Your task to perform on an android device: turn notification dots off Image 0: 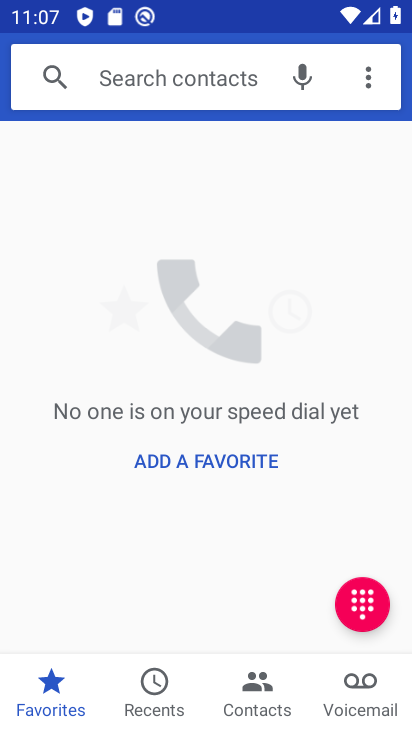
Step 0: press home button
Your task to perform on an android device: turn notification dots off Image 1: 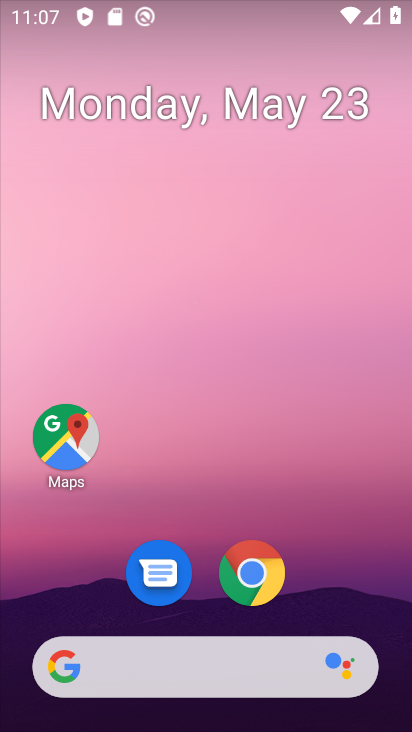
Step 1: drag from (397, 615) to (377, 344)
Your task to perform on an android device: turn notification dots off Image 2: 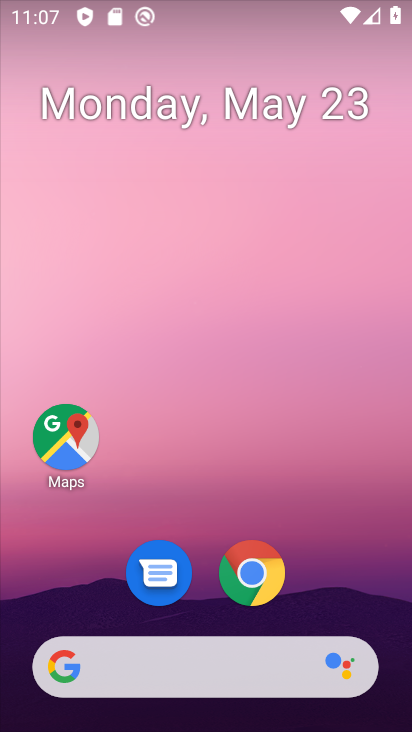
Step 2: drag from (398, 618) to (349, 365)
Your task to perform on an android device: turn notification dots off Image 3: 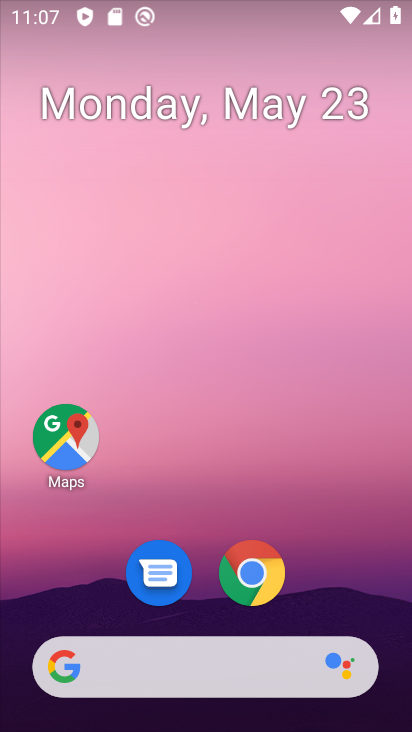
Step 3: drag from (368, 609) to (350, 254)
Your task to perform on an android device: turn notification dots off Image 4: 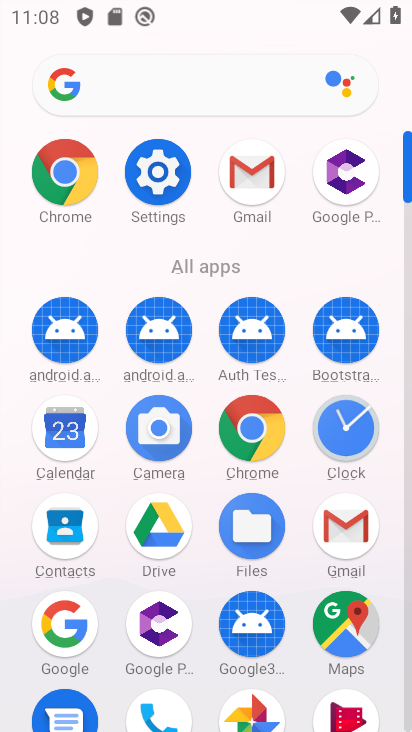
Step 4: click (170, 196)
Your task to perform on an android device: turn notification dots off Image 5: 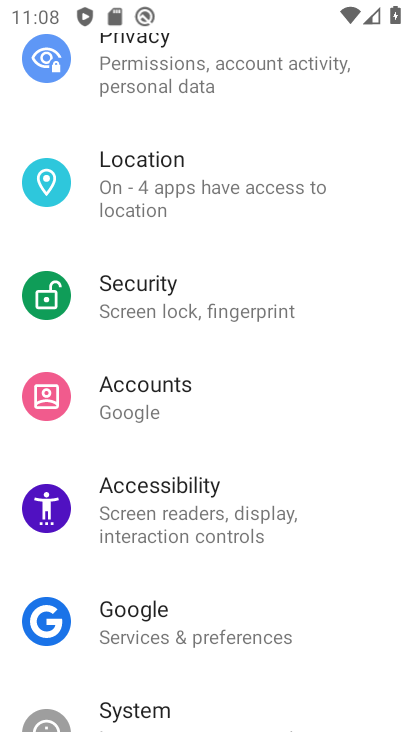
Step 5: drag from (346, 215) to (353, 348)
Your task to perform on an android device: turn notification dots off Image 6: 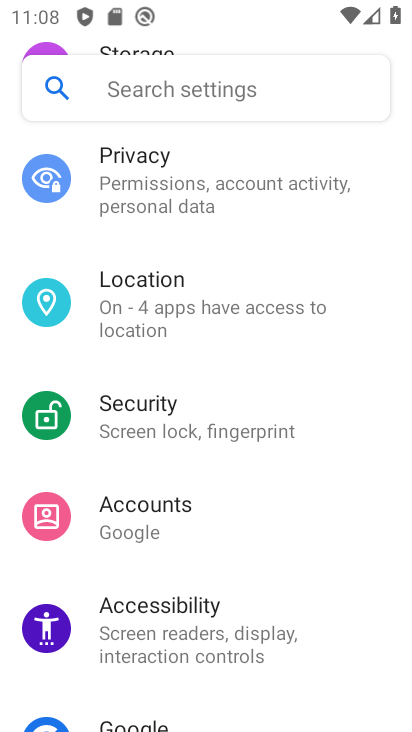
Step 6: drag from (354, 169) to (356, 374)
Your task to perform on an android device: turn notification dots off Image 7: 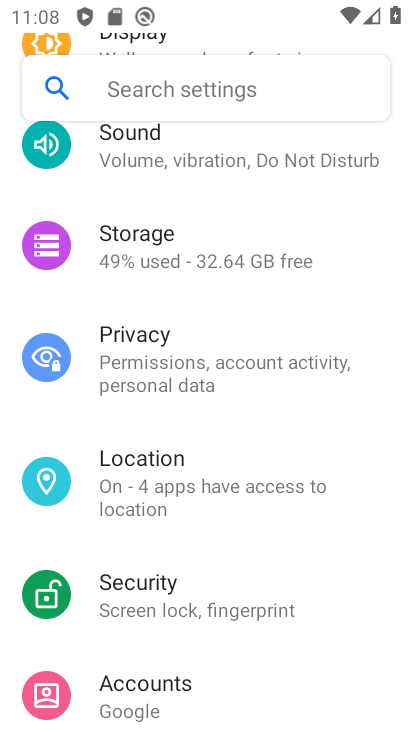
Step 7: drag from (377, 189) to (367, 319)
Your task to perform on an android device: turn notification dots off Image 8: 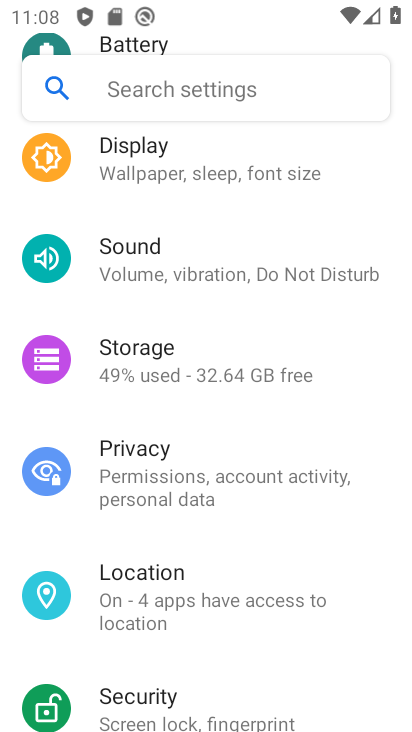
Step 8: drag from (348, 156) to (355, 281)
Your task to perform on an android device: turn notification dots off Image 9: 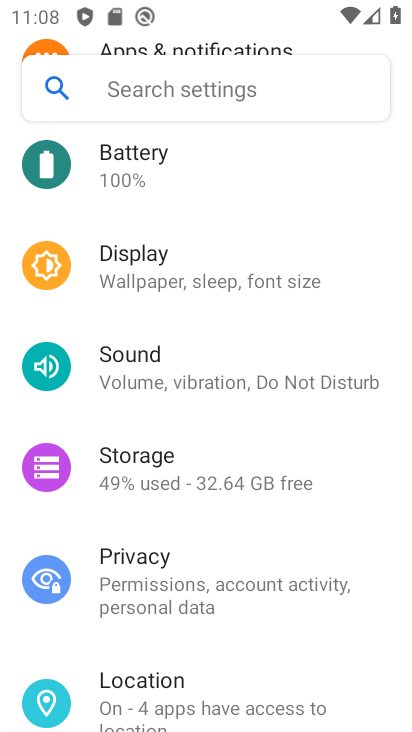
Step 9: drag from (358, 196) to (361, 321)
Your task to perform on an android device: turn notification dots off Image 10: 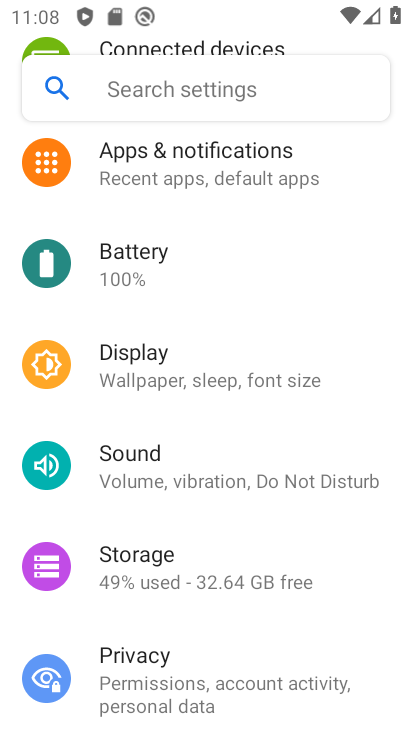
Step 10: drag from (358, 232) to (374, 384)
Your task to perform on an android device: turn notification dots off Image 11: 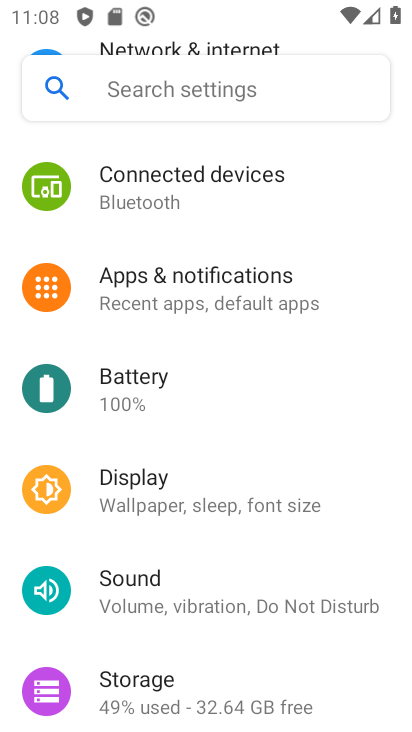
Step 11: drag from (371, 224) to (358, 405)
Your task to perform on an android device: turn notification dots off Image 12: 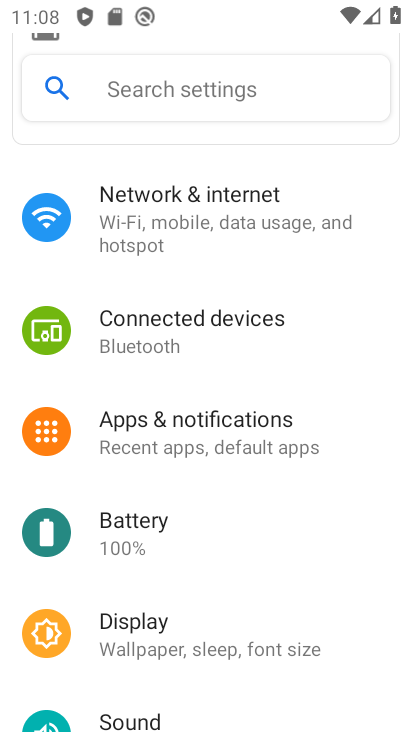
Step 12: drag from (367, 195) to (363, 360)
Your task to perform on an android device: turn notification dots off Image 13: 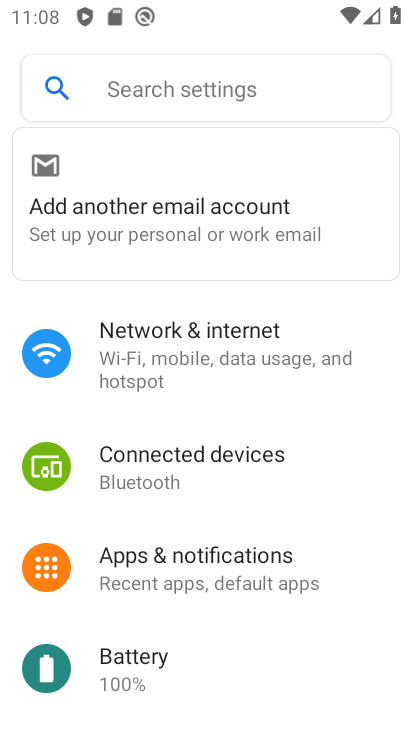
Step 13: drag from (360, 285) to (370, 428)
Your task to perform on an android device: turn notification dots off Image 14: 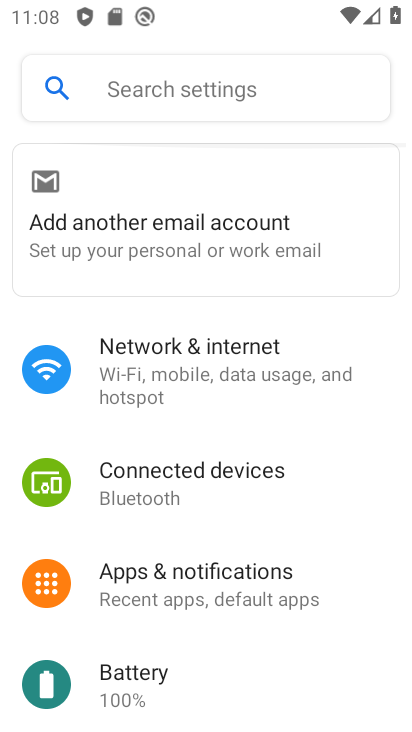
Step 14: drag from (346, 480) to (355, 345)
Your task to perform on an android device: turn notification dots off Image 15: 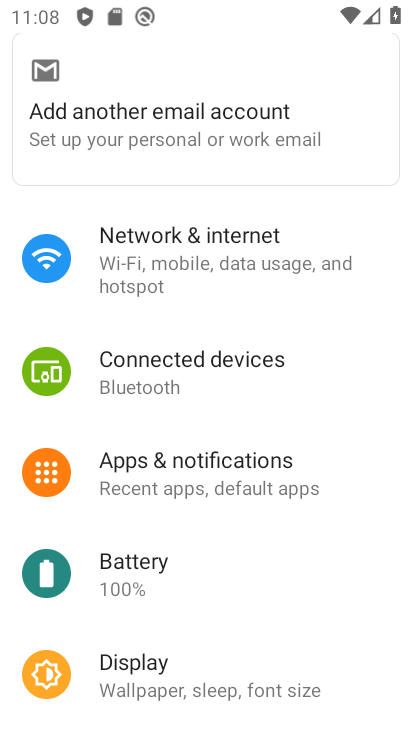
Step 15: drag from (364, 510) to (372, 390)
Your task to perform on an android device: turn notification dots off Image 16: 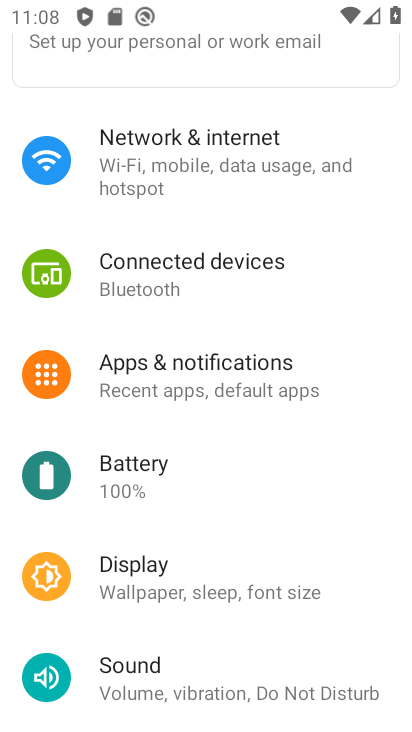
Step 16: drag from (373, 541) to (354, 410)
Your task to perform on an android device: turn notification dots off Image 17: 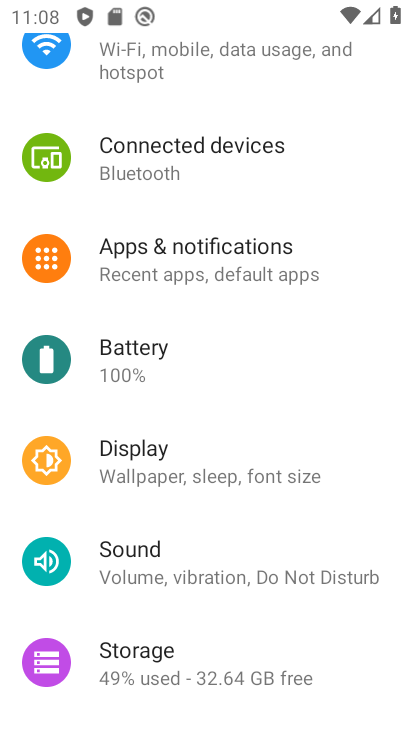
Step 17: drag from (348, 607) to (354, 473)
Your task to perform on an android device: turn notification dots off Image 18: 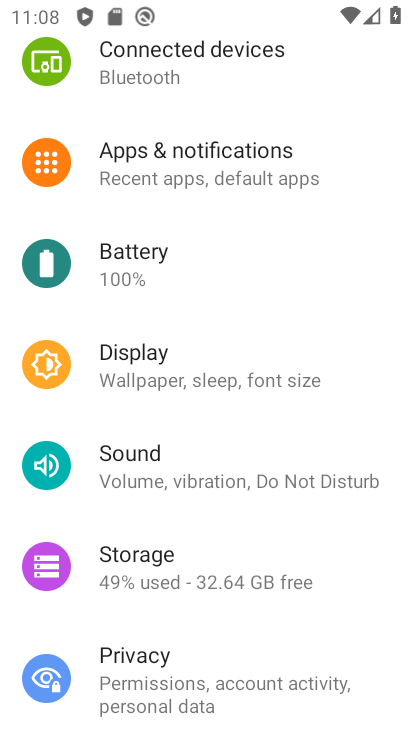
Step 18: click (276, 200)
Your task to perform on an android device: turn notification dots off Image 19: 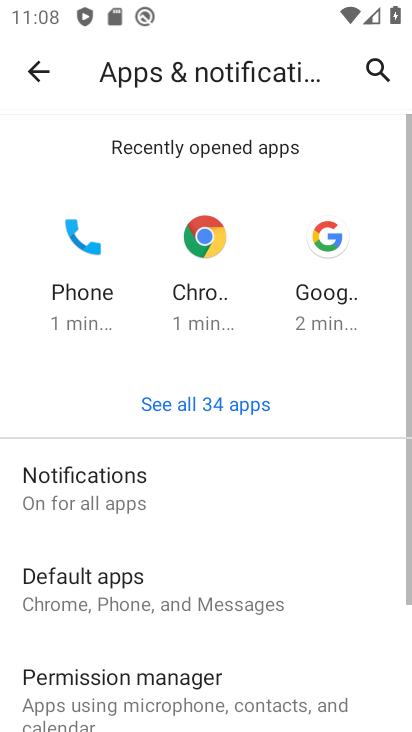
Step 19: click (147, 518)
Your task to perform on an android device: turn notification dots off Image 20: 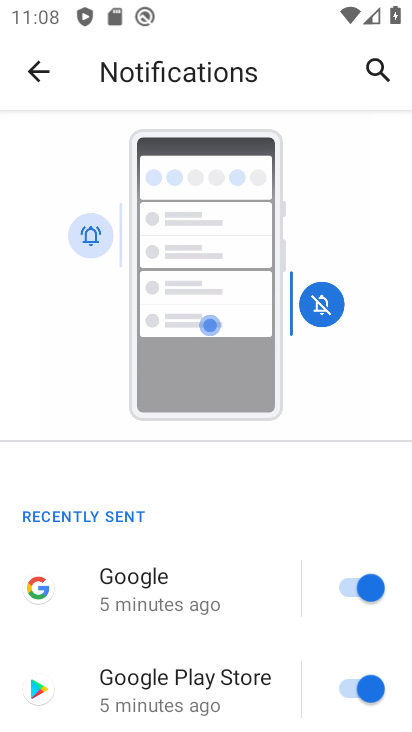
Step 20: drag from (280, 557) to (268, 383)
Your task to perform on an android device: turn notification dots off Image 21: 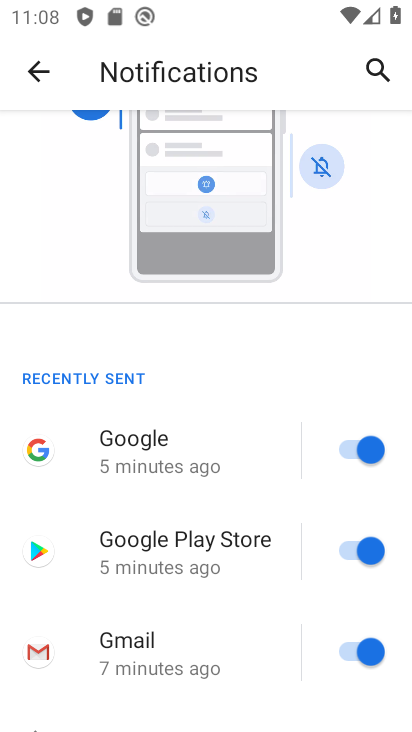
Step 21: drag from (269, 580) to (279, 437)
Your task to perform on an android device: turn notification dots off Image 22: 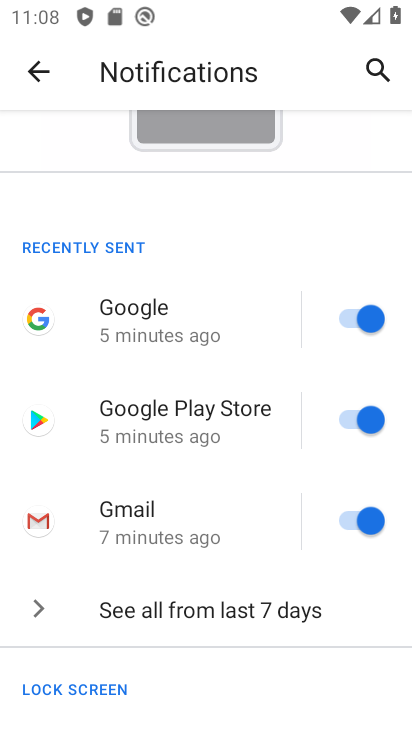
Step 22: drag from (272, 619) to (275, 487)
Your task to perform on an android device: turn notification dots off Image 23: 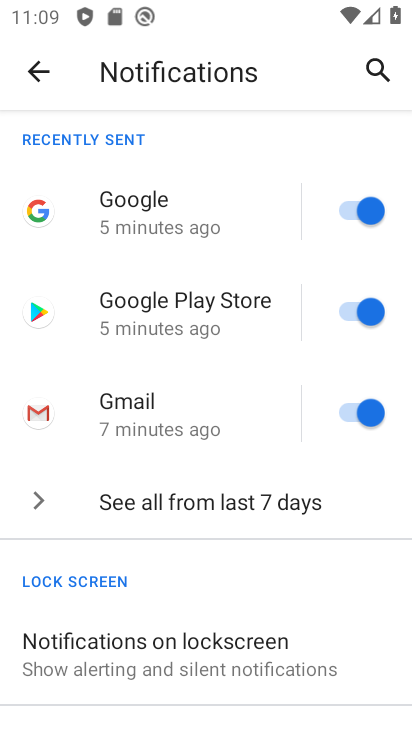
Step 23: drag from (283, 647) to (264, 452)
Your task to perform on an android device: turn notification dots off Image 24: 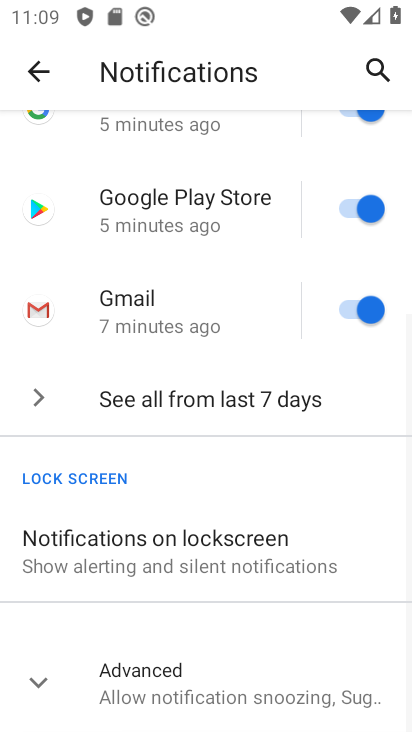
Step 24: click (238, 687)
Your task to perform on an android device: turn notification dots off Image 25: 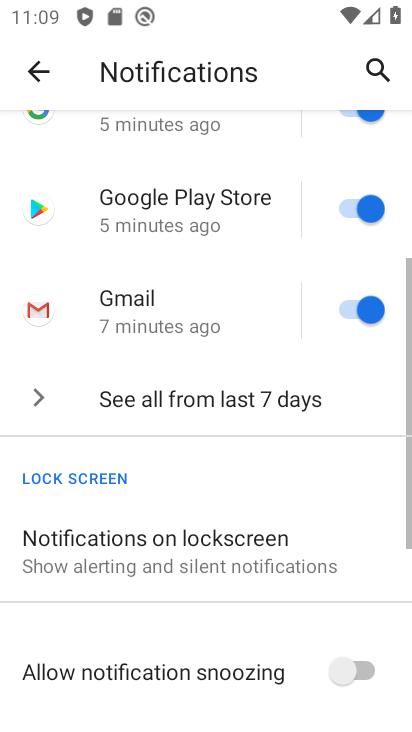
Step 25: drag from (303, 617) to (283, 480)
Your task to perform on an android device: turn notification dots off Image 26: 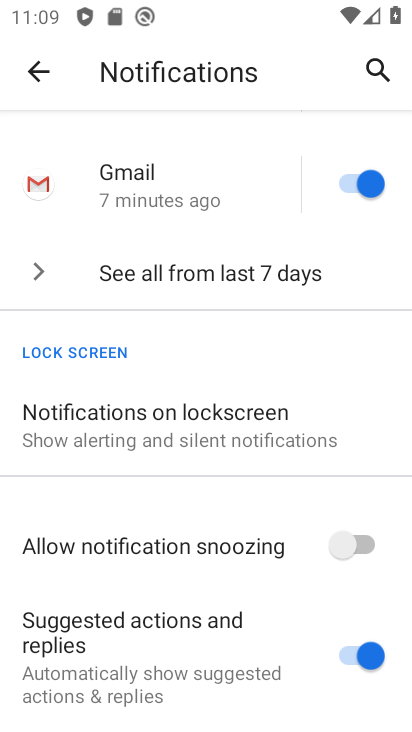
Step 26: drag from (303, 687) to (316, 521)
Your task to perform on an android device: turn notification dots off Image 27: 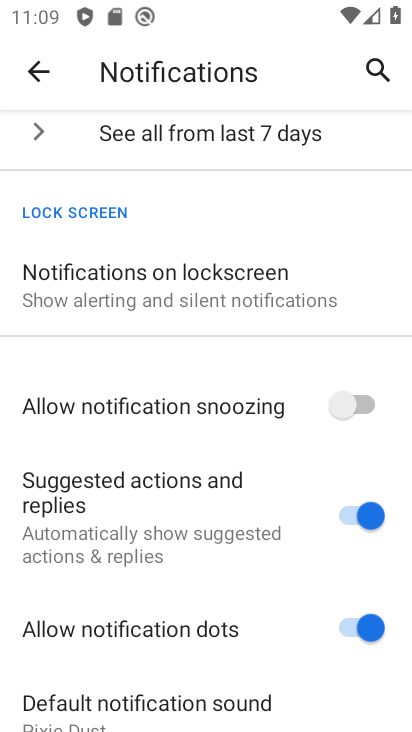
Step 27: click (364, 625)
Your task to perform on an android device: turn notification dots off Image 28: 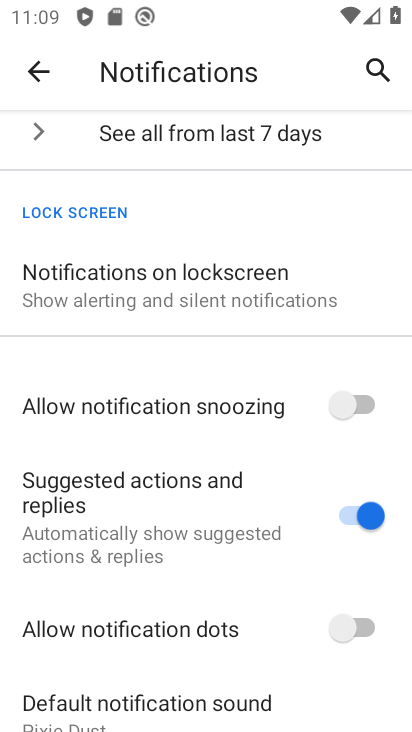
Step 28: task complete